Your task to perform on an android device: toggle wifi Image 0: 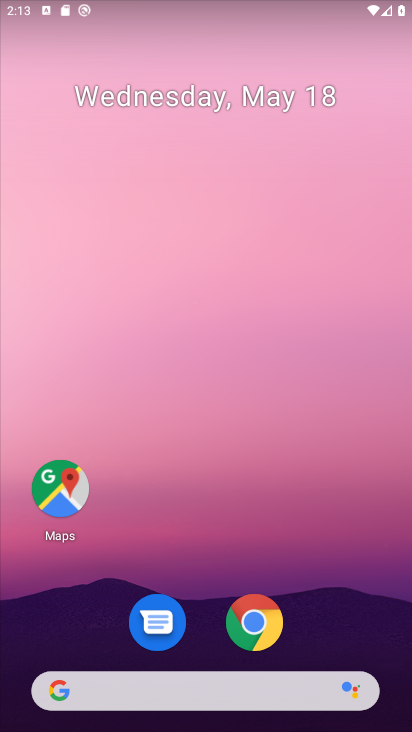
Step 0: click (142, 365)
Your task to perform on an android device: toggle wifi Image 1: 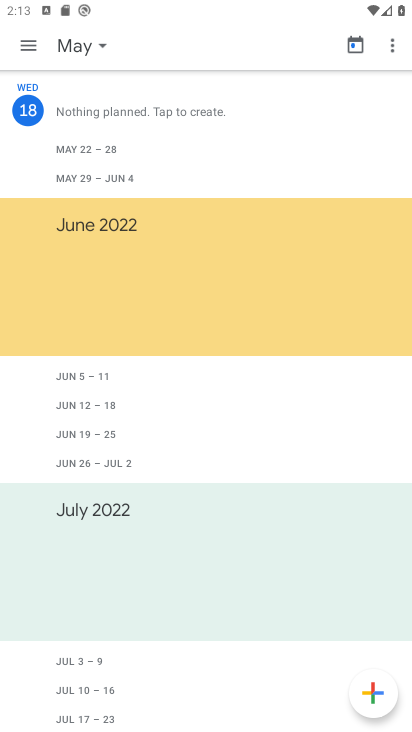
Step 1: press home button
Your task to perform on an android device: toggle wifi Image 2: 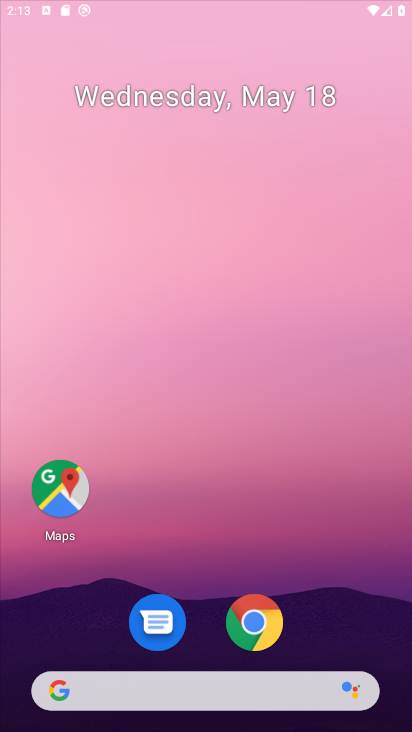
Step 2: press home button
Your task to perform on an android device: toggle wifi Image 3: 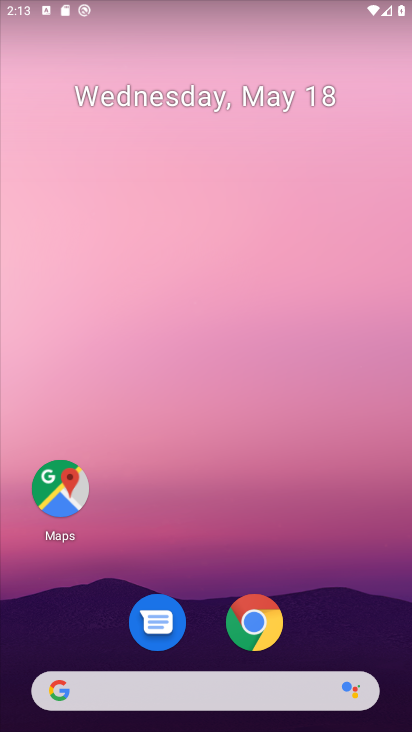
Step 3: drag from (205, 628) to (215, 203)
Your task to perform on an android device: toggle wifi Image 4: 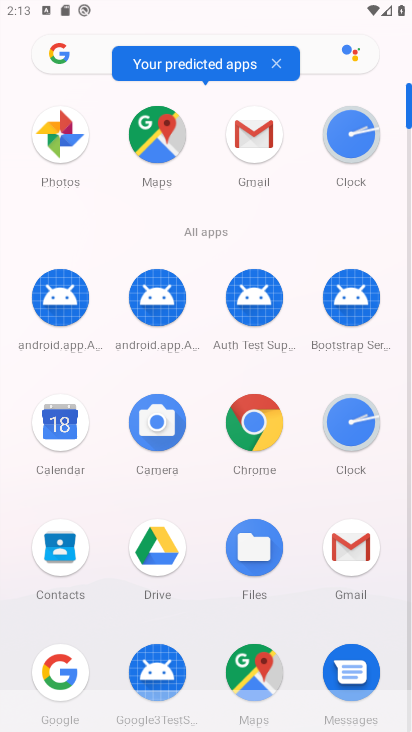
Step 4: drag from (203, 582) to (217, 285)
Your task to perform on an android device: toggle wifi Image 5: 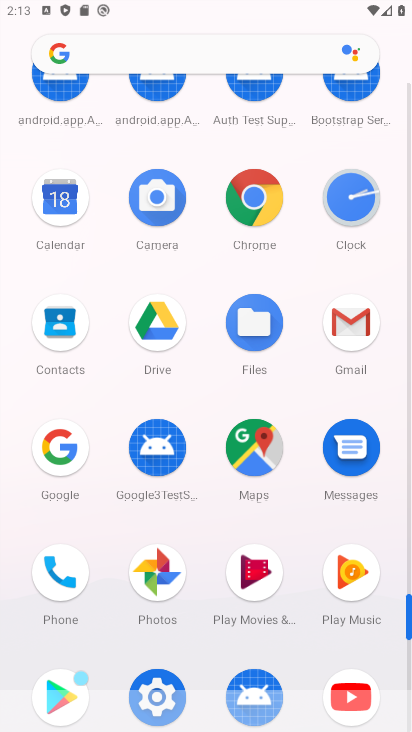
Step 5: drag from (168, 605) to (193, 463)
Your task to perform on an android device: toggle wifi Image 6: 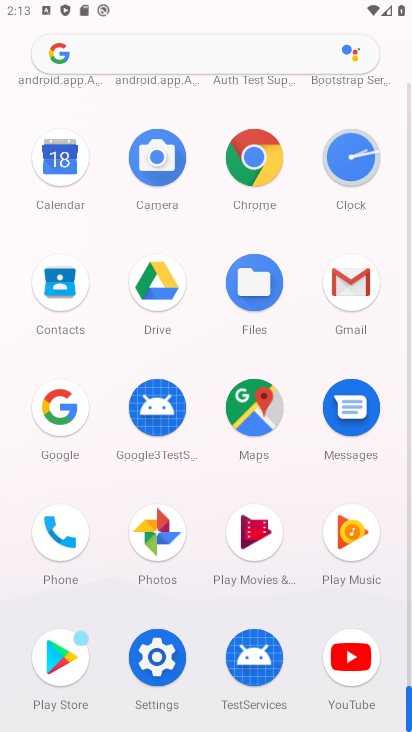
Step 6: click (159, 651)
Your task to perform on an android device: toggle wifi Image 7: 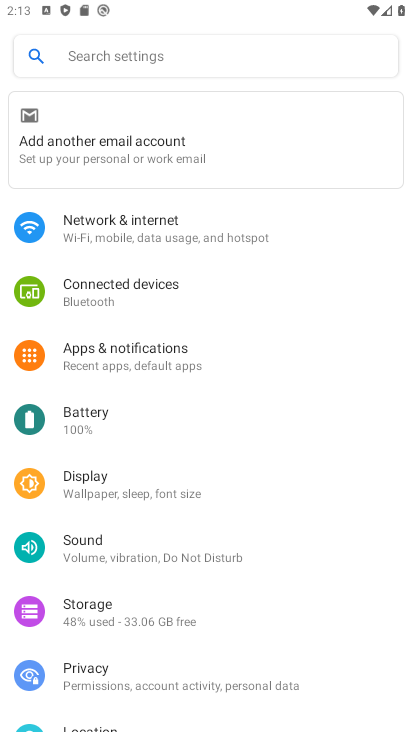
Step 7: click (193, 224)
Your task to perform on an android device: toggle wifi Image 8: 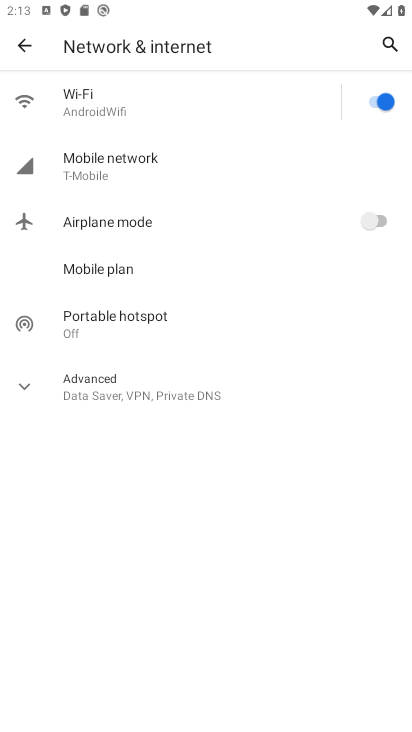
Step 8: click (359, 94)
Your task to perform on an android device: toggle wifi Image 9: 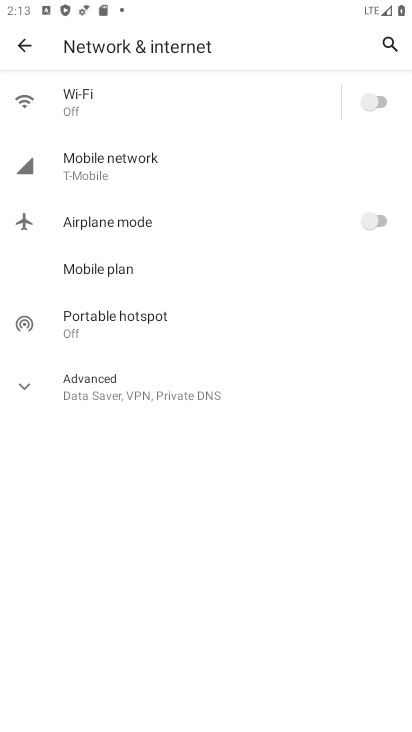
Step 9: task complete